Your task to perform on an android device: Open network settings Image 0: 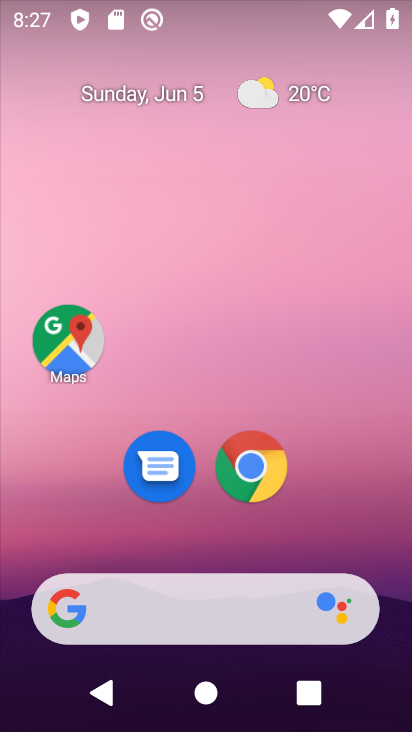
Step 0: drag from (185, 529) to (178, 94)
Your task to perform on an android device: Open network settings Image 1: 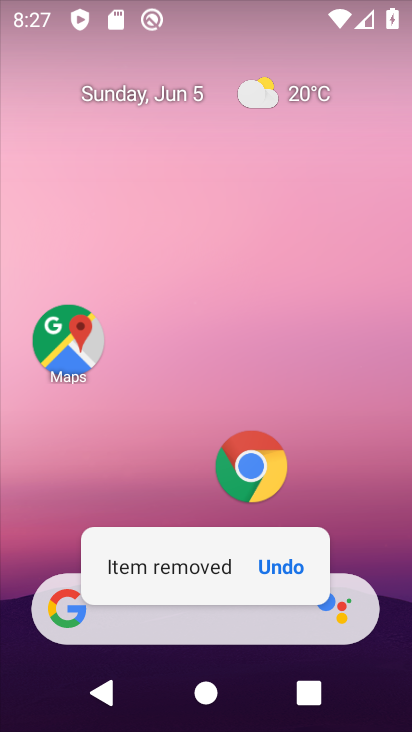
Step 1: click (282, 561)
Your task to perform on an android device: Open network settings Image 2: 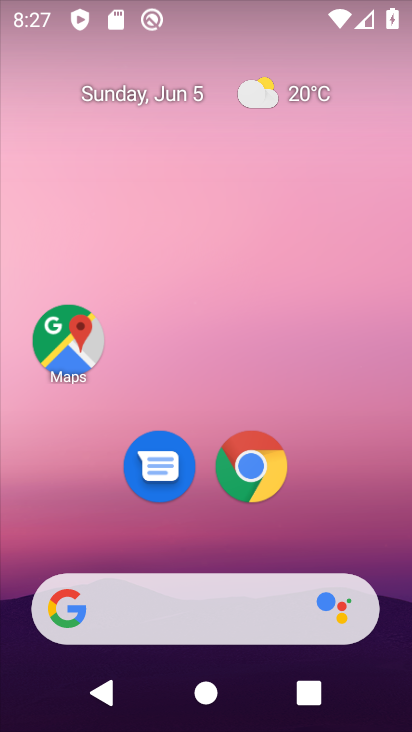
Step 2: drag from (223, 540) to (173, 0)
Your task to perform on an android device: Open network settings Image 3: 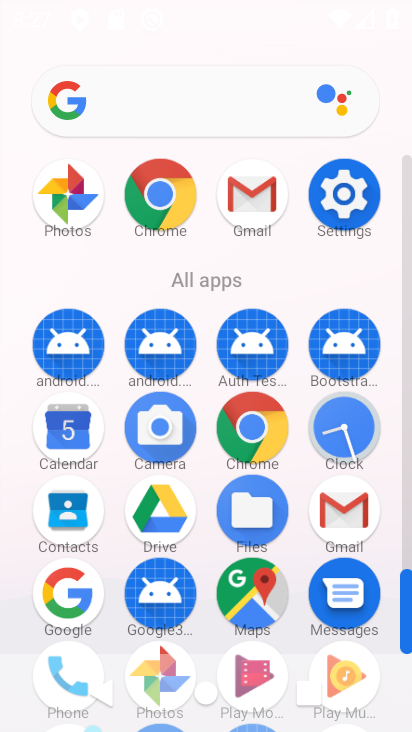
Step 3: click (351, 202)
Your task to perform on an android device: Open network settings Image 4: 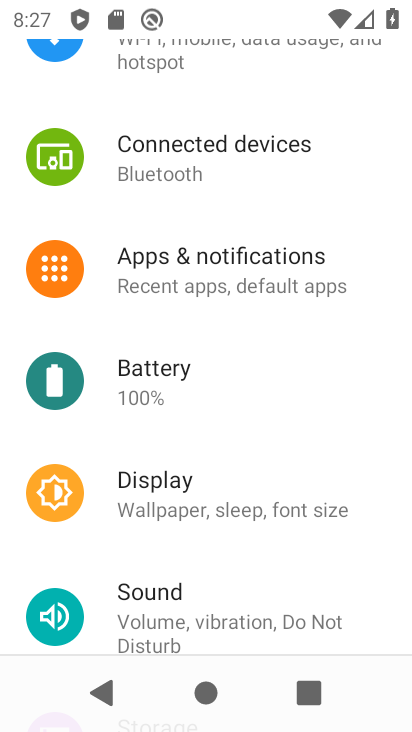
Step 4: drag from (262, 246) to (203, 492)
Your task to perform on an android device: Open network settings Image 5: 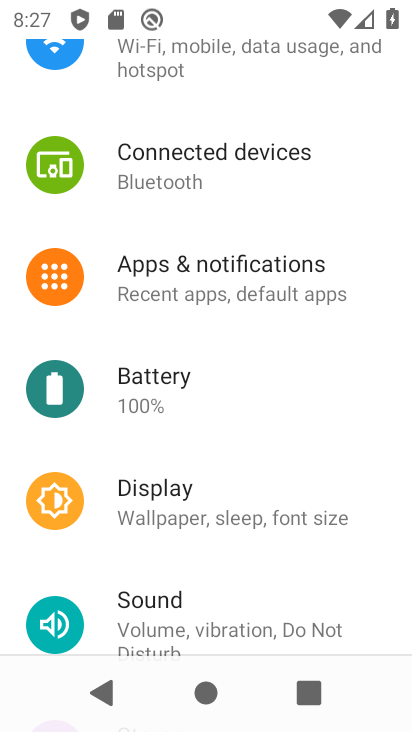
Step 5: drag from (228, 168) to (175, 416)
Your task to perform on an android device: Open network settings Image 6: 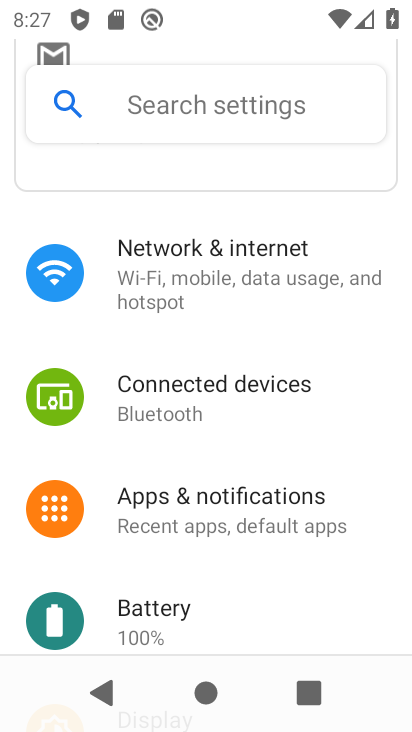
Step 6: click (220, 282)
Your task to perform on an android device: Open network settings Image 7: 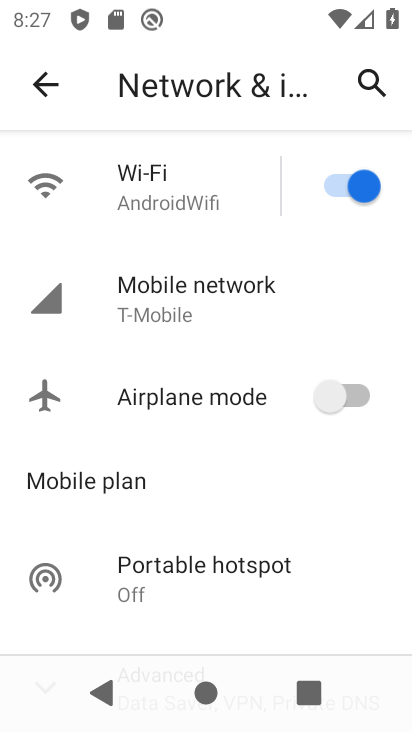
Step 7: task complete